Your task to perform on an android device: toggle airplane mode Image 0: 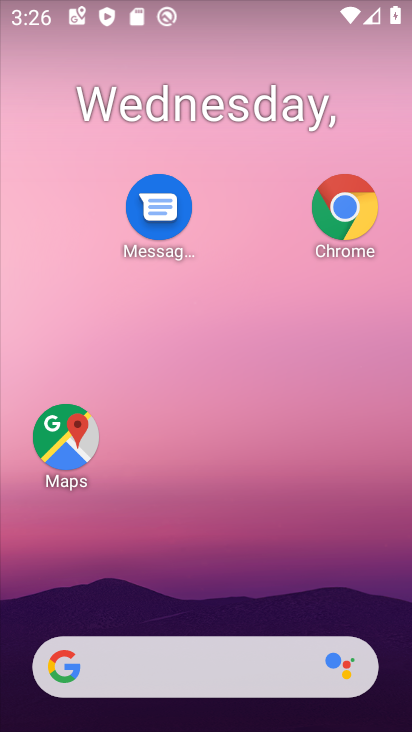
Step 0: drag from (218, 528) to (238, 233)
Your task to perform on an android device: toggle airplane mode Image 1: 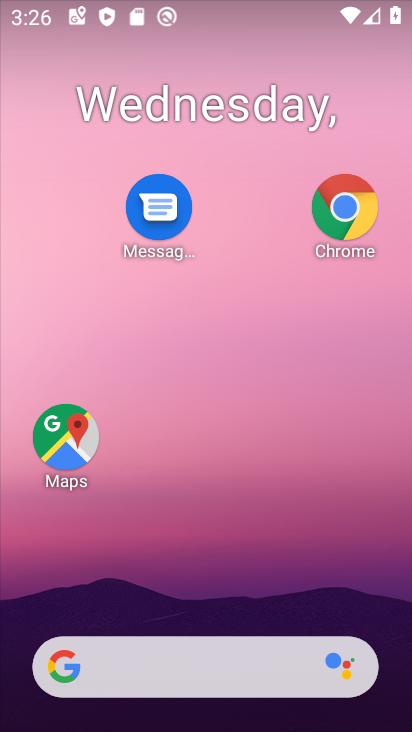
Step 1: drag from (222, 553) to (227, 62)
Your task to perform on an android device: toggle airplane mode Image 2: 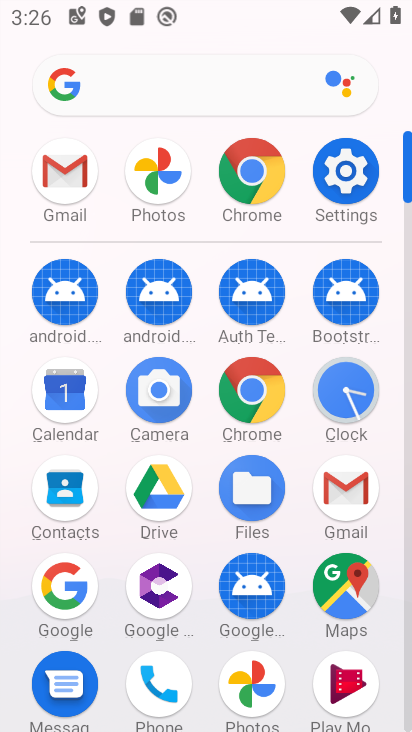
Step 2: click (329, 168)
Your task to perform on an android device: toggle airplane mode Image 3: 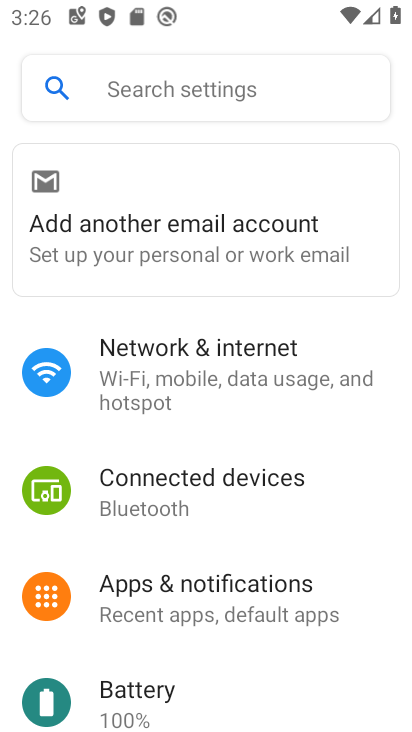
Step 3: click (168, 385)
Your task to perform on an android device: toggle airplane mode Image 4: 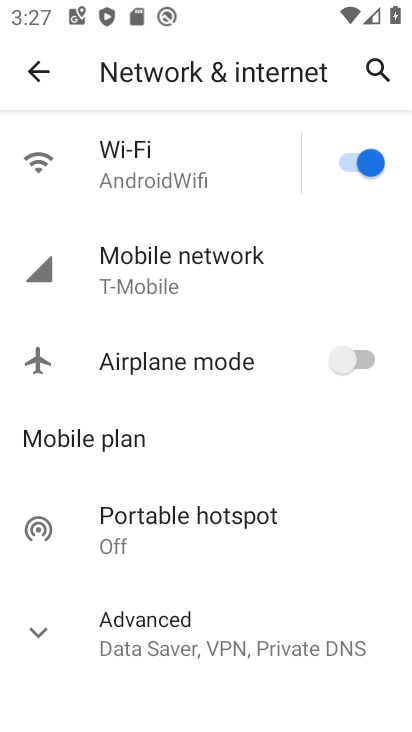
Step 4: click (190, 345)
Your task to perform on an android device: toggle airplane mode Image 5: 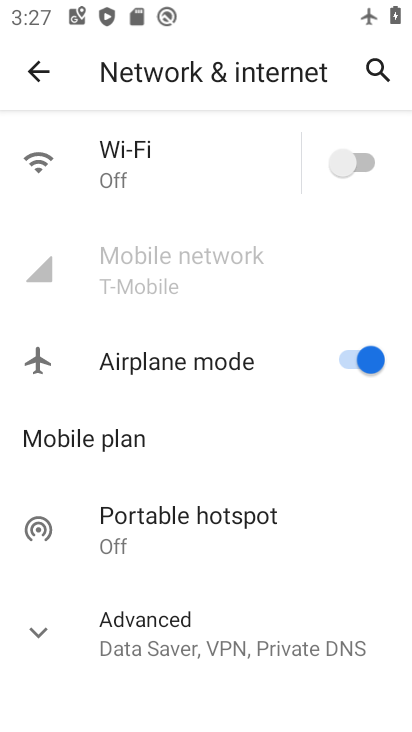
Step 5: task complete